Your task to perform on an android device: Open the calendar app, open the side menu, and click the "Day" option Image 0: 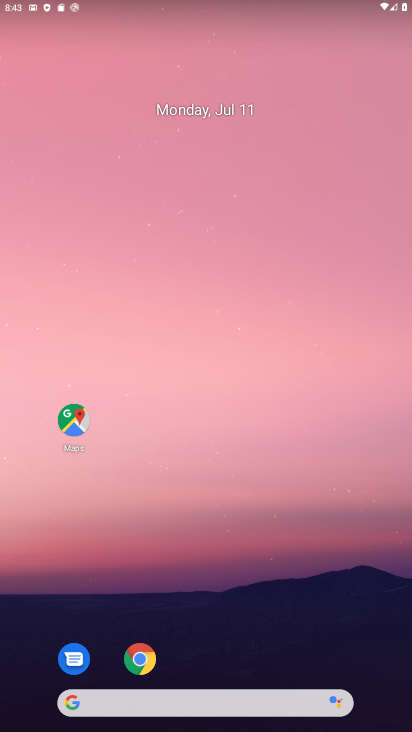
Step 0: drag from (297, 476) to (217, 12)
Your task to perform on an android device: Open the calendar app, open the side menu, and click the "Day" option Image 1: 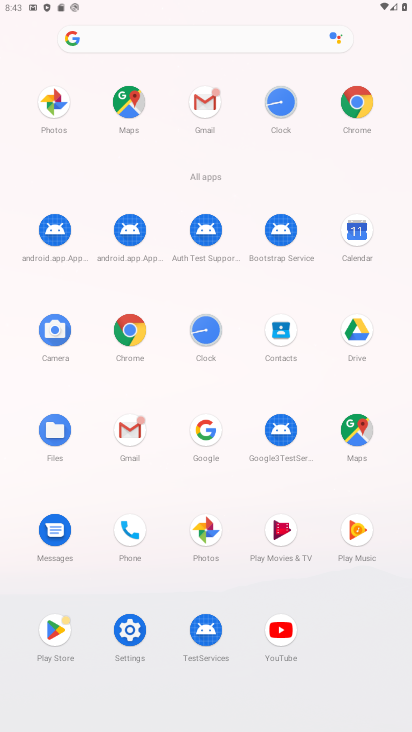
Step 1: click (350, 236)
Your task to perform on an android device: Open the calendar app, open the side menu, and click the "Day" option Image 2: 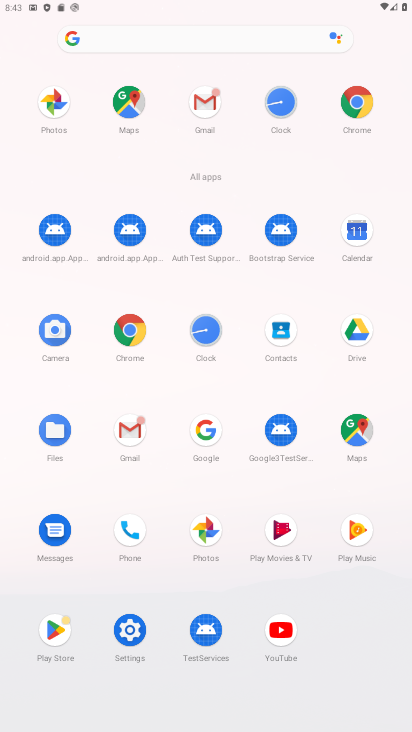
Step 2: click (355, 238)
Your task to perform on an android device: Open the calendar app, open the side menu, and click the "Day" option Image 3: 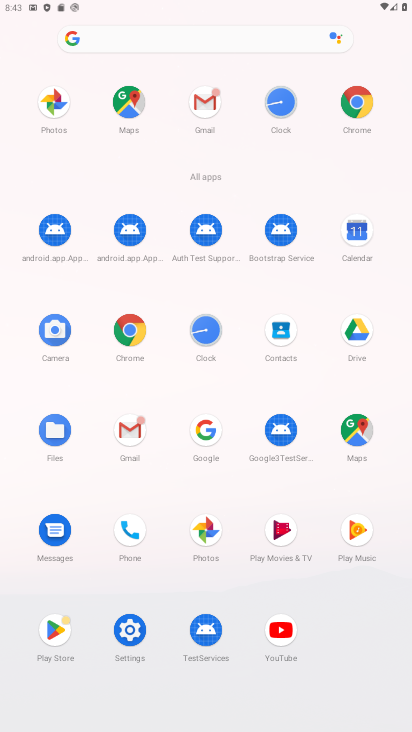
Step 3: click (359, 233)
Your task to perform on an android device: Open the calendar app, open the side menu, and click the "Day" option Image 4: 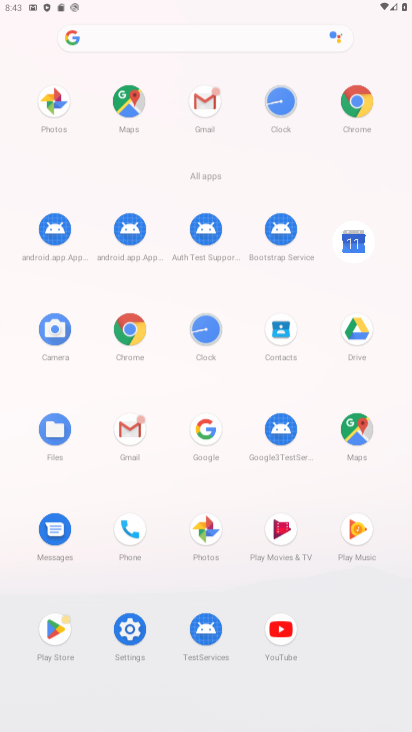
Step 4: click (360, 232)
Your task to perform on an android device: Open the calendar app, open the side menu, and click the "Day" option Image 5: 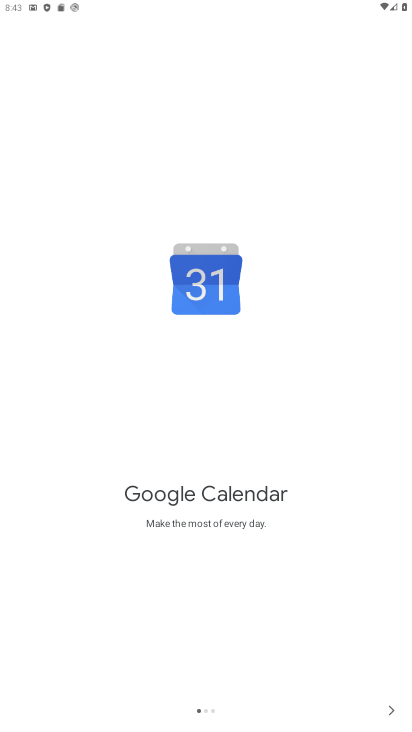
Step 5: click (395, 718)
Your task to perform on an android device: Open the calendar app, open the side menu, and click the "Day" option Image 6: 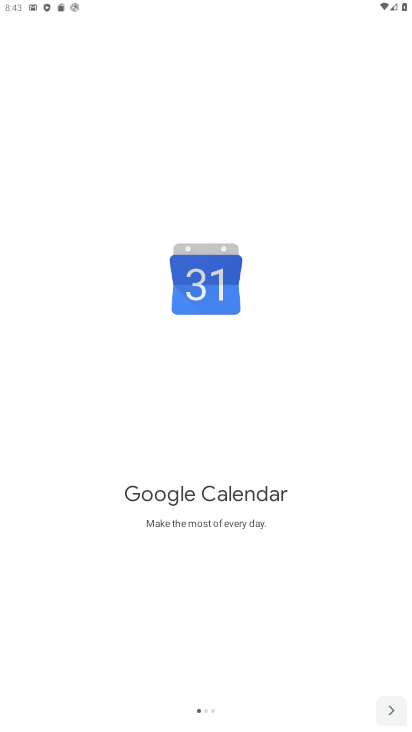
Step 6: click (392, 713)
Your task to perform on an android device: Open the calendar app, open the side menu, and click the "Day" option Image 7: 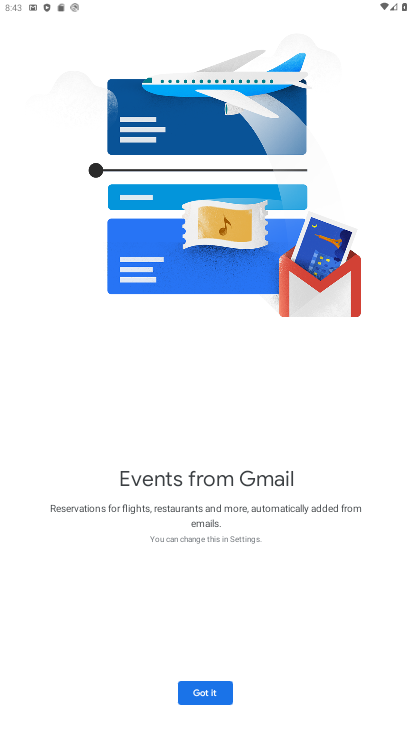
Step 7: click (395, 706)
Your task to perform on an android device: Open the calendar app, open the side menu, and click the "Day" option Image 8: 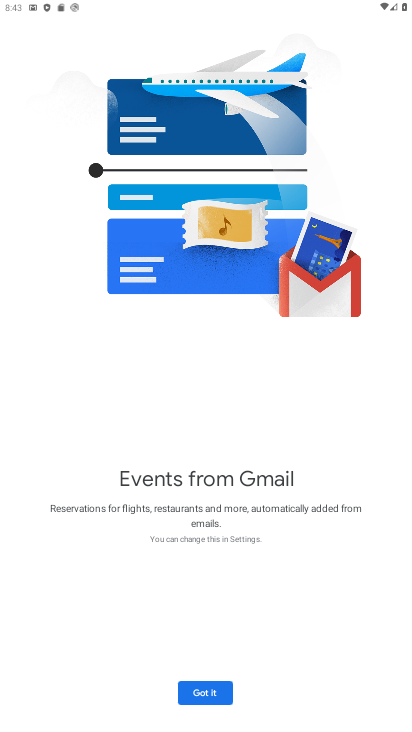
Step 8: click (393, 707)
Your task to perform on an android device: Open the calendar app, open the side menu, and click the "Day" option Image 9: 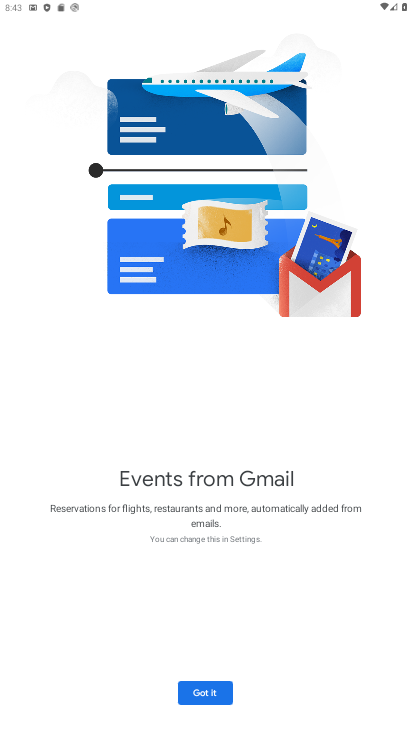
Step 9: click (213, 681)
Your task to perform on an android device: Open the calendar app, open the side menu, and click the "Day" option Image 10: 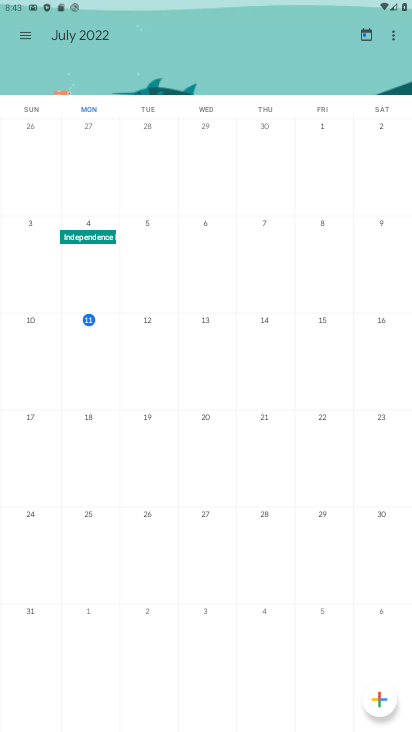
Step 10: click (29, 26)
Your task to perform on an android device: Open the calendar app, open the side menu, and click the "Day" option Image 11: 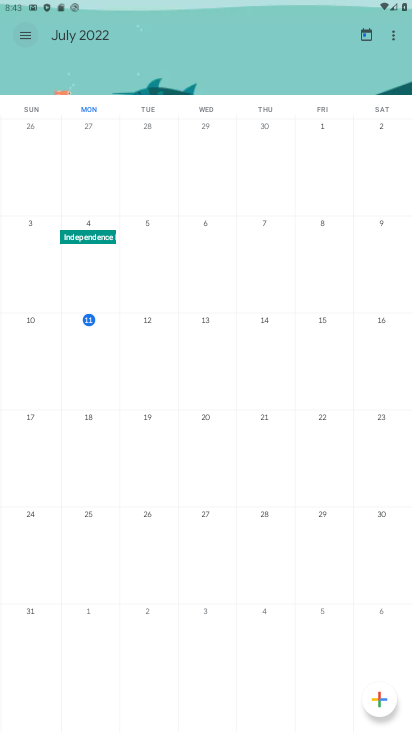
Step 11: click (34, 28)
Your task to perform on an android device: Open the calendar app, open the side menu, and click the "Day" option Image 12: 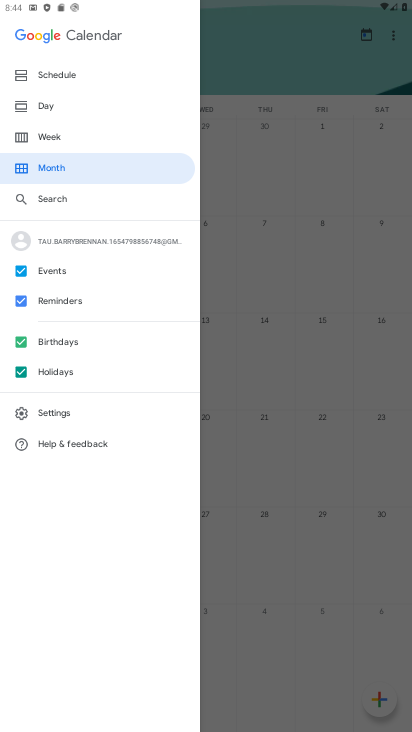
Step 12: click (39, 86)
Your task to perform on an android device: Open the calendar app, open the side menu, and click the "Day" option Image 13: 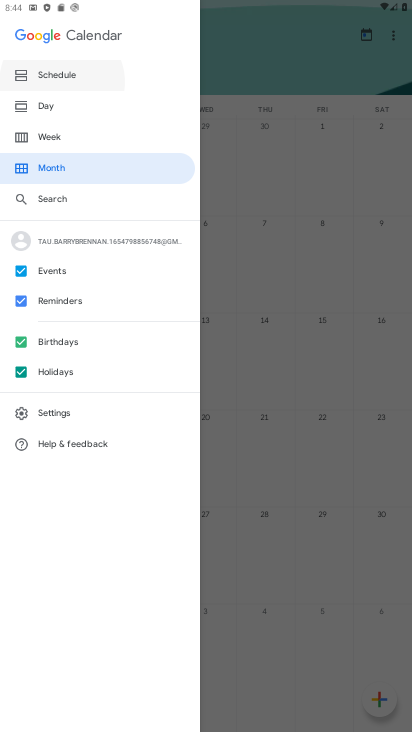
Step 13: click (43, 100)
Your task to perform on an android device: Open the calendar app, open the side menu, and click the "Day" option Image 14: 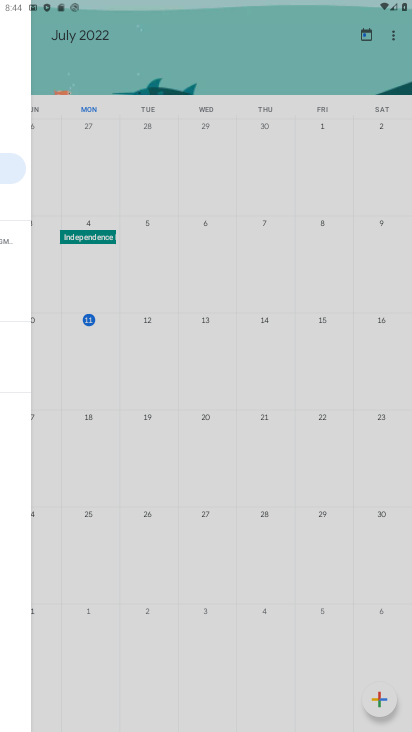
Step 14: click (48, 97)
Your task to perform on an android device: Open the calendar app, open the side menu, and click the "Day" option Image 15: 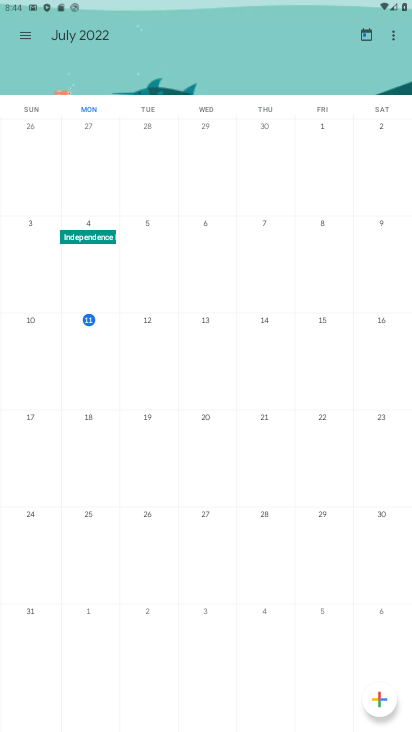
Step 15: click (50, 97)
Your task to perform on an android device: Open the calendar app, open the side menu, and click the "Day" option Image 16: 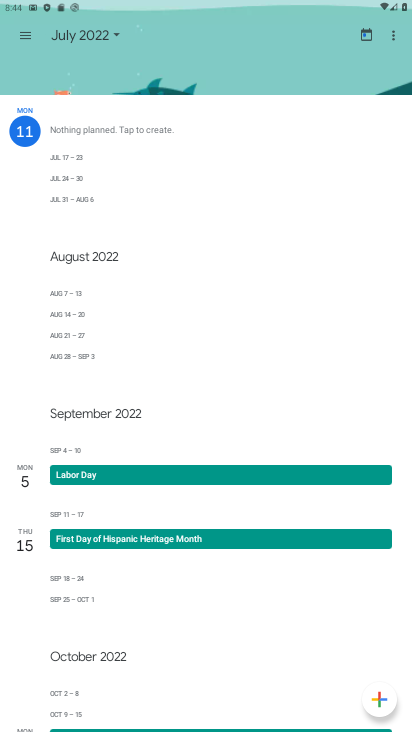
Step 16: task complete